Your task to perform on an android device: refresh tabs in the chrome app Image 0: 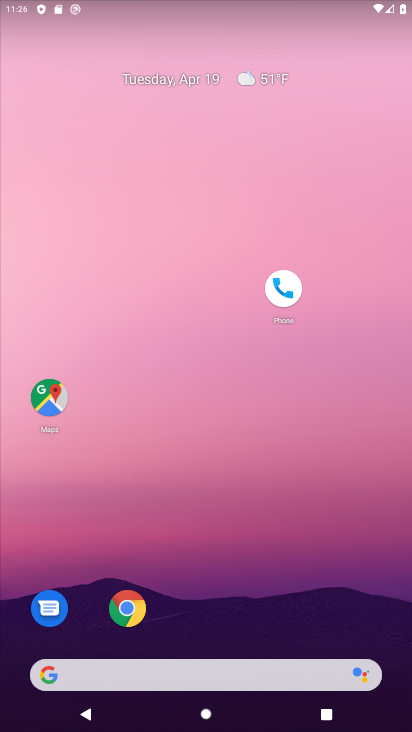
Step 0: click (130, 610)
Your task to perform on an android device: refresh tabs in the chrome app Image 1: 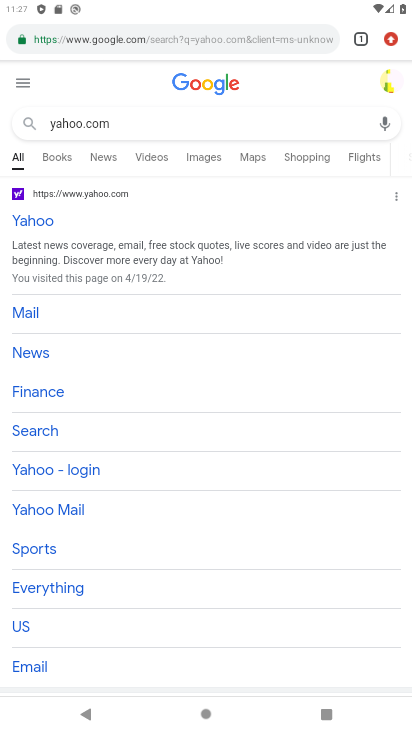
Step 1: click (387, 38)
Your task to perform on an android device: refresh tabs in the chrome app Image 2: 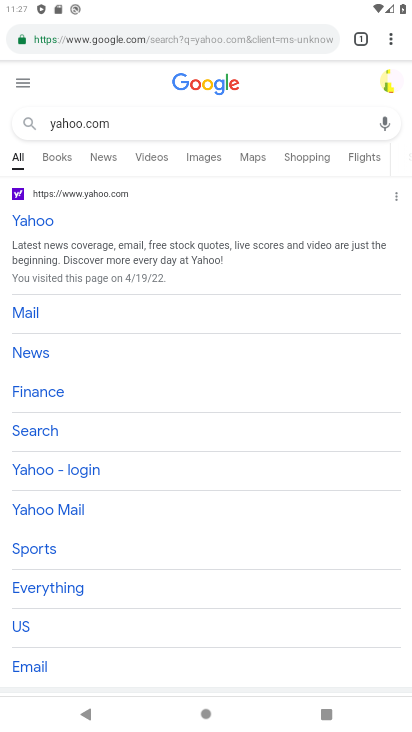
Step 2: click (388, 44)
Your task to perform on an android device: refresh tabs in the chrome app Image 3: 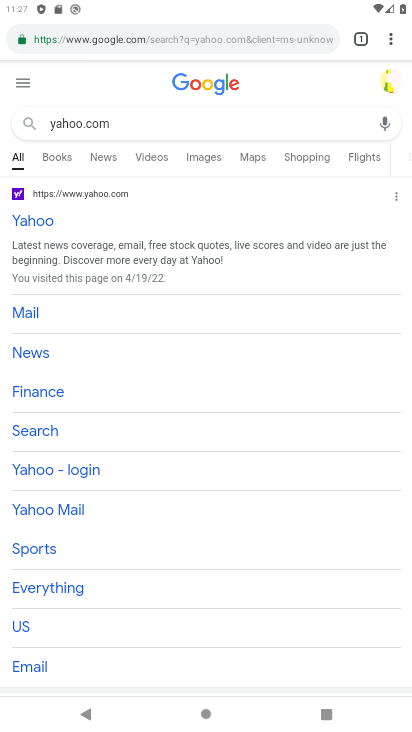
Step 3: click (388, 44)
Your task to perform on an android device: refresh tabs in the chrome app Image 4: 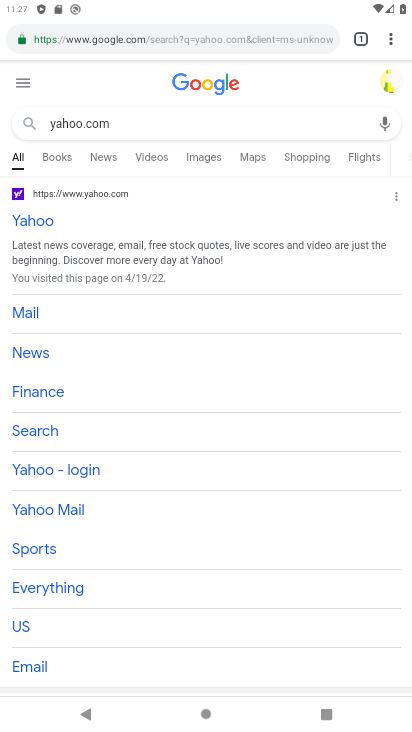
Step 4: click (394, 38)
Your task to perform on an android device: refresh tabs in the chrome app Image 5: 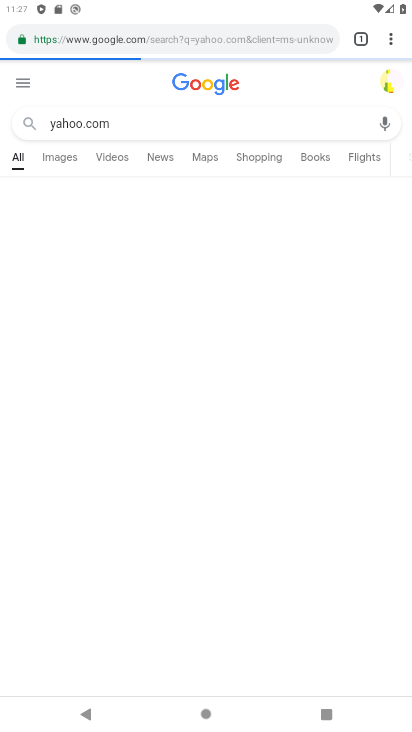
Step 5: click (388, 40)
Your task to perform on an android device: refresh tabs in the chrome app Image 6: 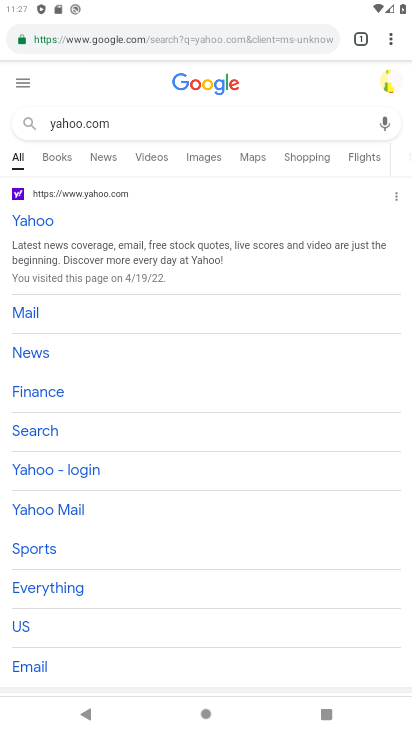
Step 6: task complete